Your task to perform on an android device: Is it going to rain tomorrow? Image 0: 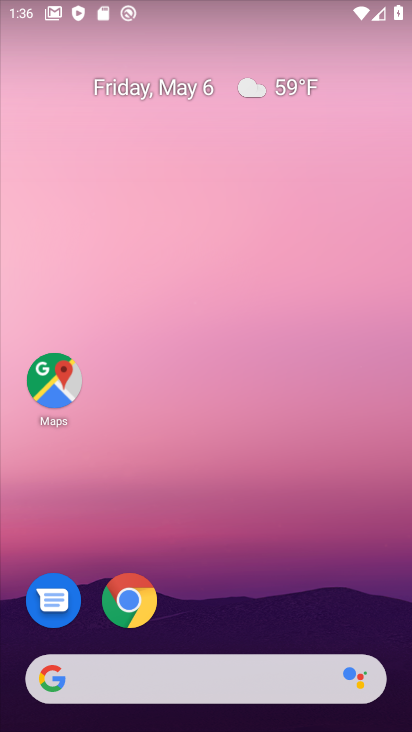
Step 0: drag from (226, 579) to (260, 55)
Your task to perform on an android device: Is it going to rain tomorrow? Image 1: 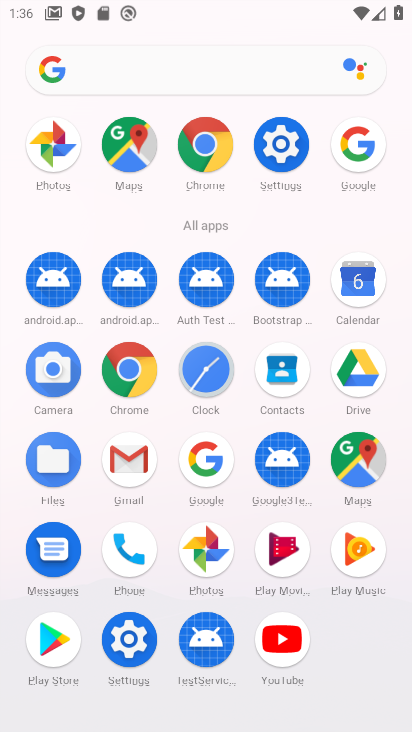
Step 1: click (208, 464)
Your task to perform on an android device: Is it going to rain tomorrow? Image 2: 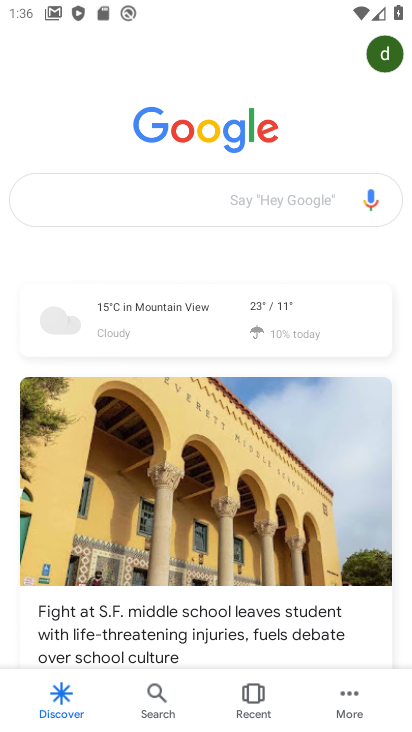
Step 2: type "is it going to rain tomorrow"
Your task to perform on an android device: Is it going to rain tomorrow? Image 3: 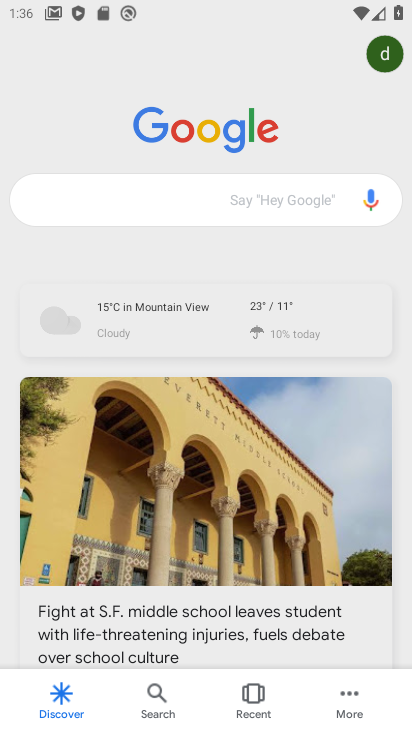
Step 3: click (126, 209)
Your task to perform on an android device: Is it going to rain tomorrow? Image 4: 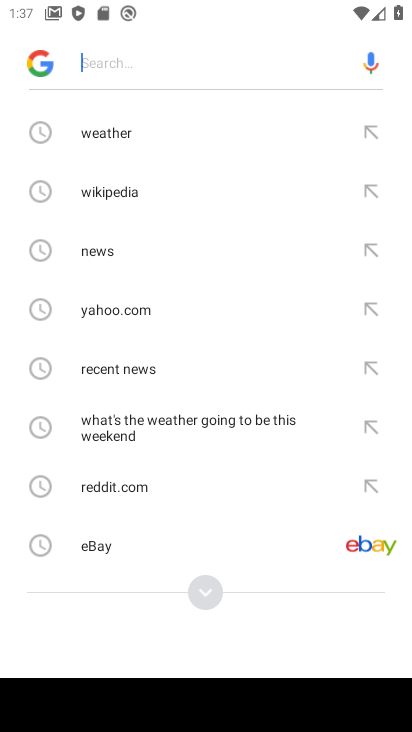
Step 4: type "is it going to rain tomorrow"
Your task to perform on an android device: Is it going to rain tomorrow? Image 5: 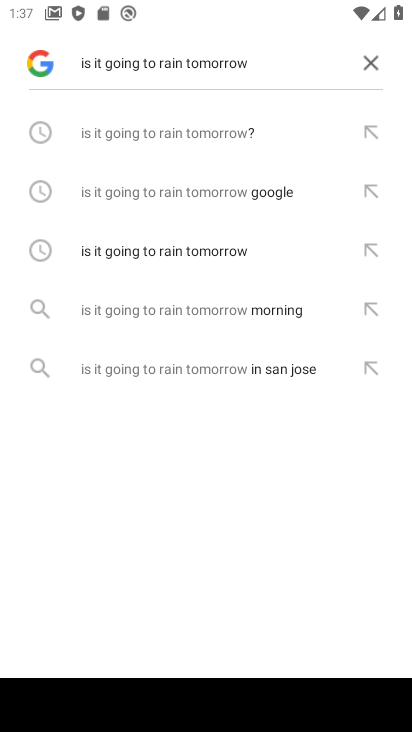
Step 5: click (182, 126)
Your task to perform on an android device: Is it going to rain tomorrow? Image 6: 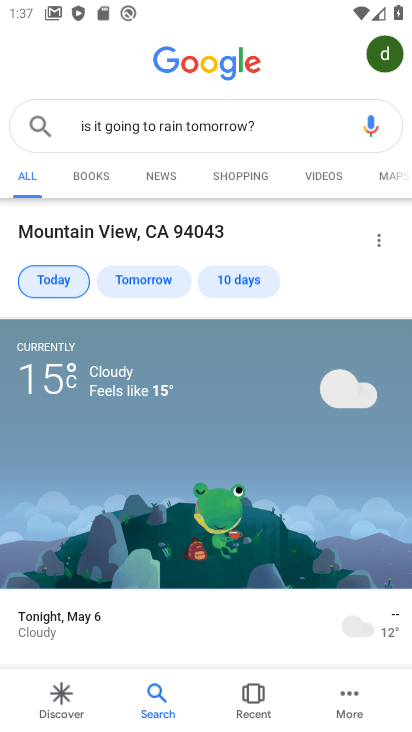
Step 6: task complete